Your task to perform on an android device: Search for vegetarian restaurants on Maps Image 0: 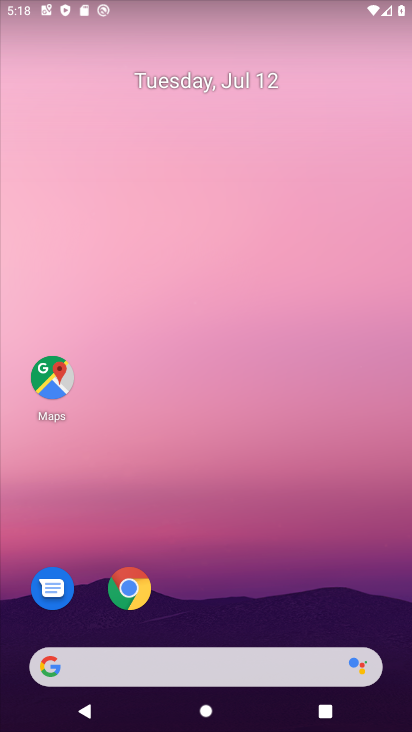
Step 0: drag from (293, 526) to (278, 68)
Your task to perform on an android device: Search for vegetarian restaurants on Maps Image 1: 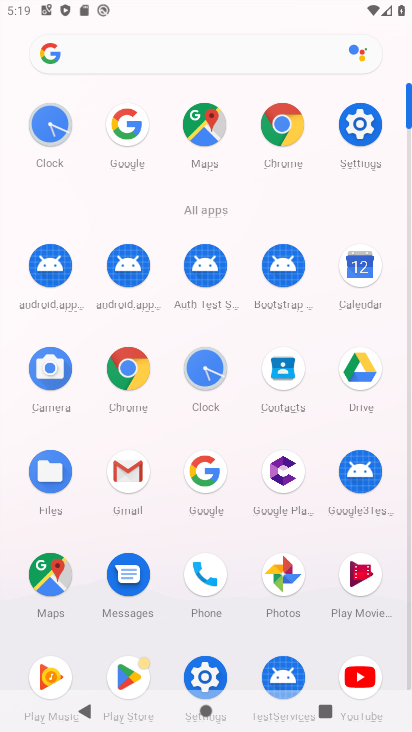
Step 1: click (194, 127)
Your task to perform on an android device: Search for vegetarian restaurants on Maps Image 2: 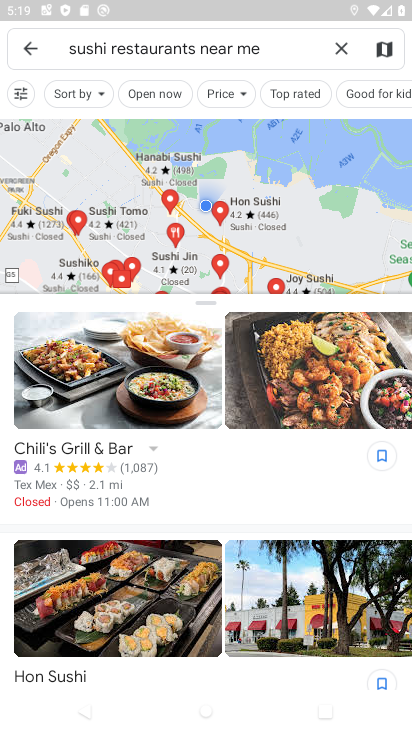
Step 2: click (334, 45)
Your task to perform on an android device: Search for vegetarian restaurants on Maps Image 3: 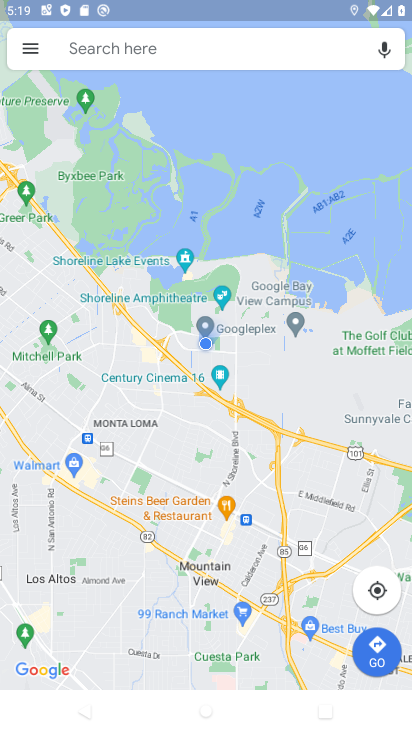
Step 3: click (224, 47)
Your task to perform on an android device: Search for vegetarian restaurants on Maps Image 4: 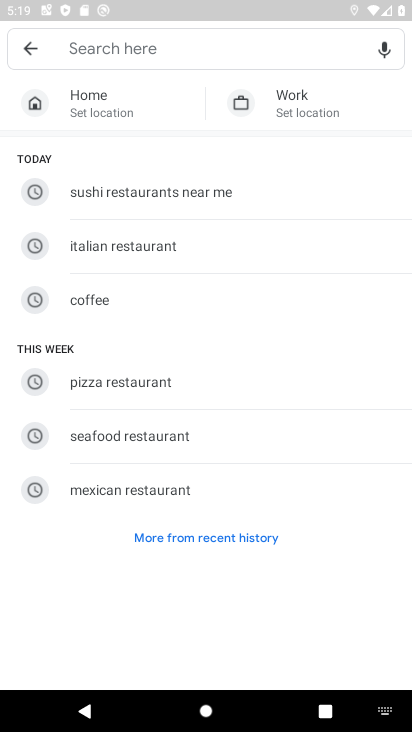
Step 4: type "vegetarian restaurant"
Your task to perform on an android device: Search for vegetarian restaurants on Maps Image 5: 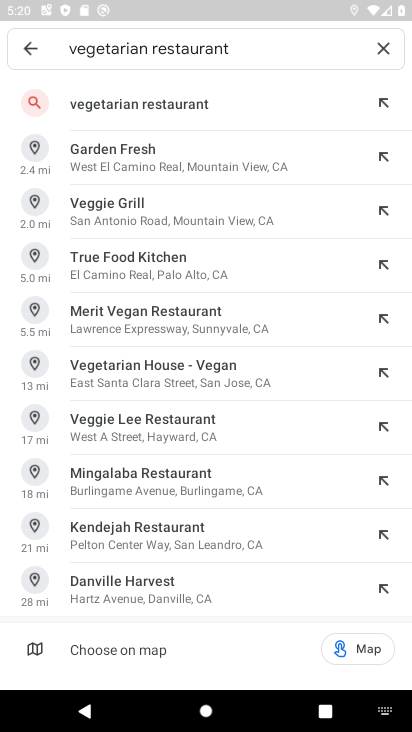
Step 5: click (153, 105)
Your task to perform on an android device: Search for vegetarian restaurants on Maps Image 6: 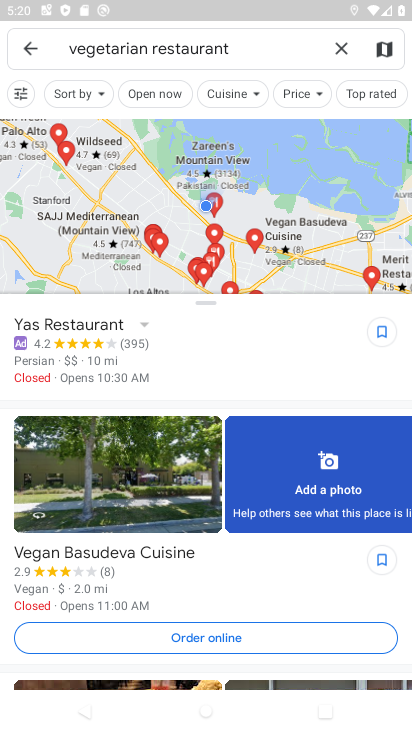
Step 6: task complete